Your task to perform on an android device: allow notifications from all sites in the chrome app Image 0: 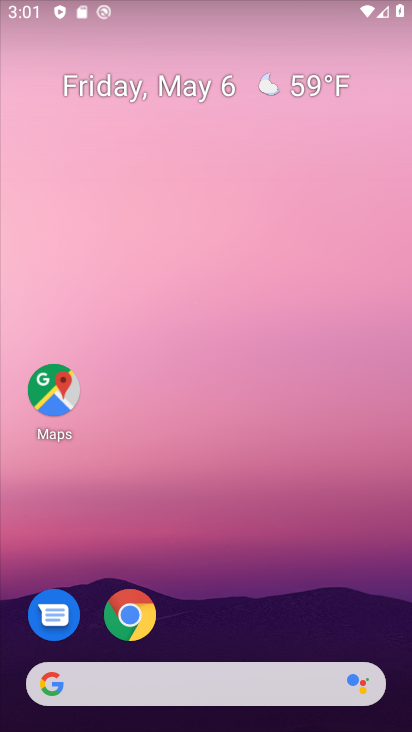
Step 0: press home button
Your task to perform on an android device: allow notifications from all sites in the chrome app Image 1: 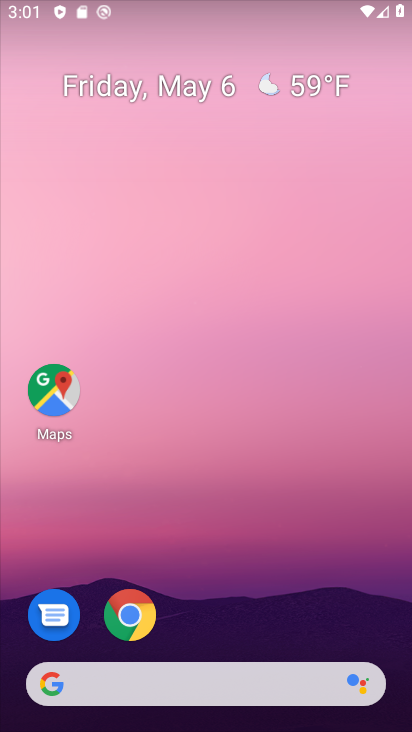
Step 1: click (282, 188)
Your task to perform on an android device: allow notifications from all sites in the chrome app Image 2: 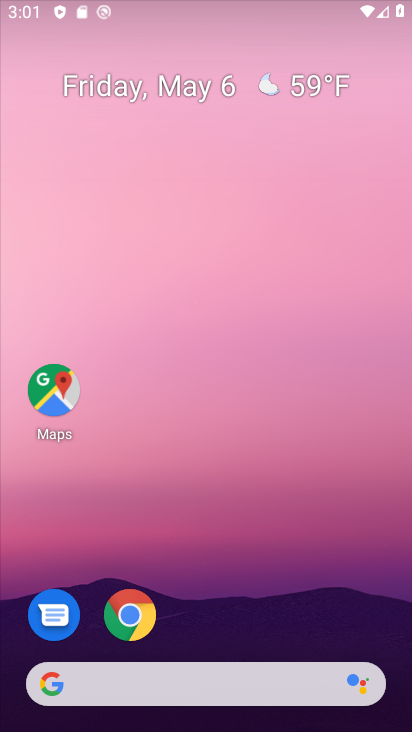
Step 2: drag from (234, 438) to (241, 230)
Your task to perform on an android device: allow notifications from all sites in the chrome app Image 3: 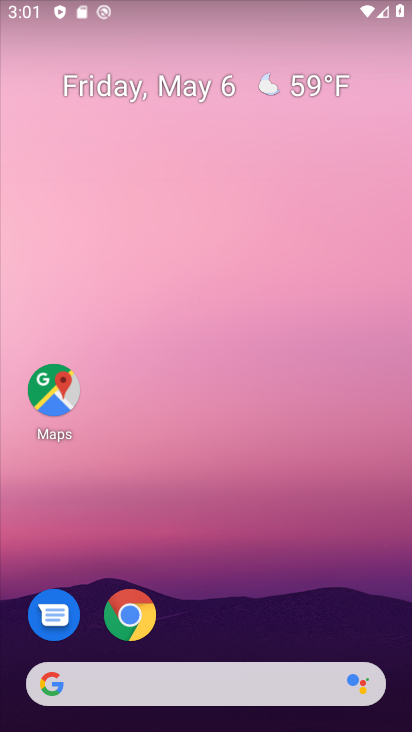
Step 3: drag from (243, 542) to (273, 213)
Your task to perform on an android device: allow notifications from all sites in the chrome app Image 4: 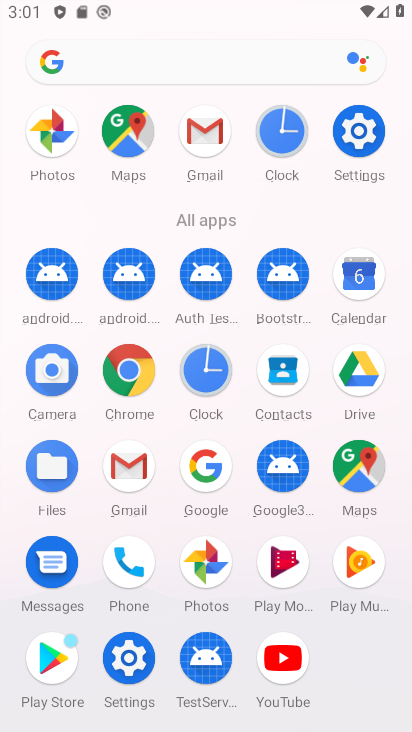
Step 4: click (354, 265)
Your task to perform on an android device: allow notifications from all sites in the chrome app Image 5: 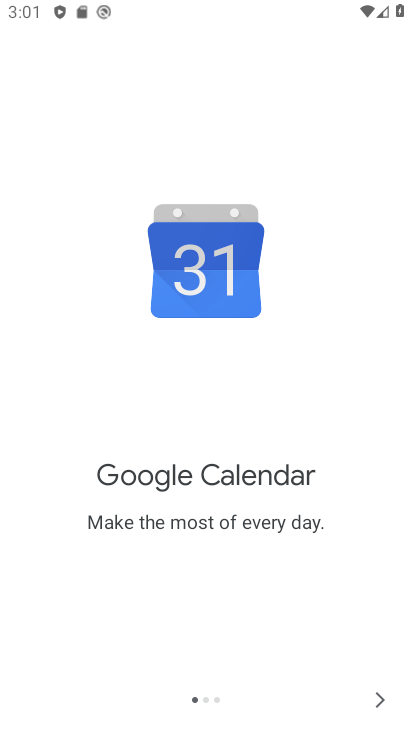
Step 5: click (384, 701)
Your task to perform on an android device: allow notifications from all sites in the chrome app Image 6: 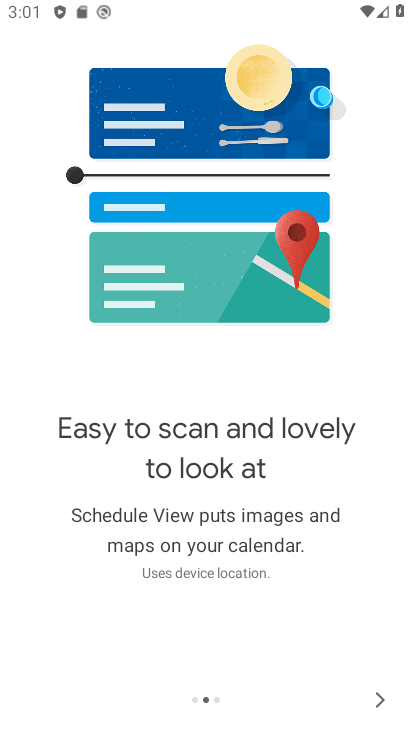
Step 6: click (376, 703)
Your task to perform on an android device: allow notifications from all sites in the chrome app Image 7: 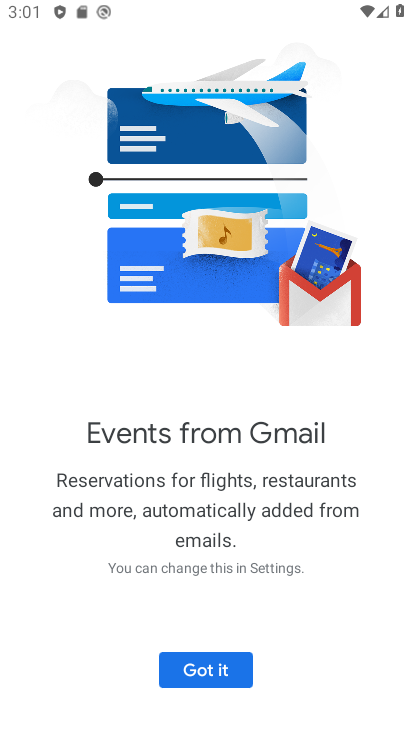
Step 7: click (376, 703)
Your task to perform on an android device: allow notifications from all sites in the chrome app Image 8: 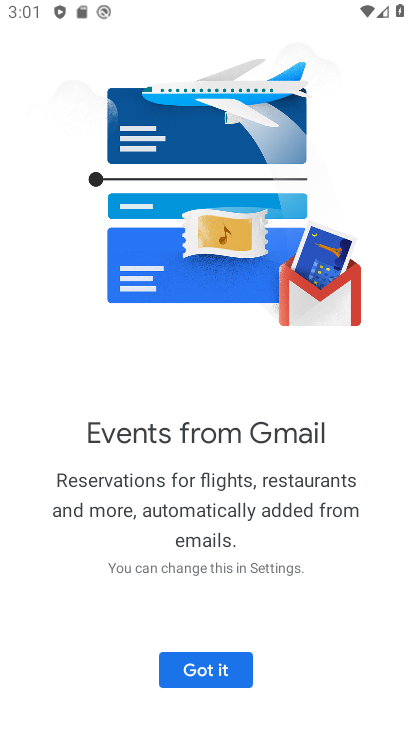
Step 8: click (207, 672)
Your task to perform on an android device: allow notifications from all sites in the chrome app Image 9: 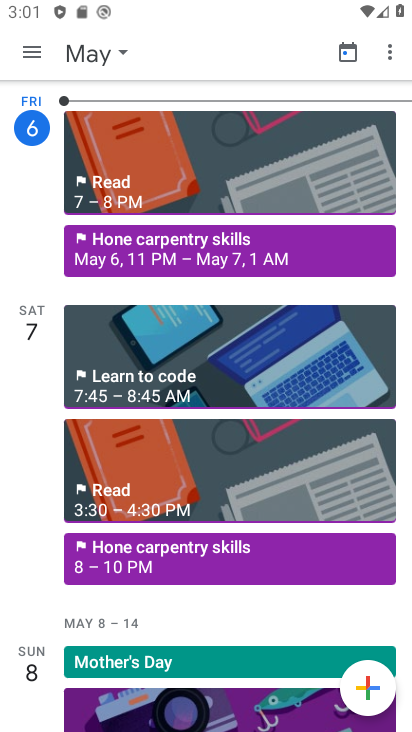
Step 9: click (41, 52)
Your task to perform on an android device: allow notifications from all sites in the chrome app Image 10: 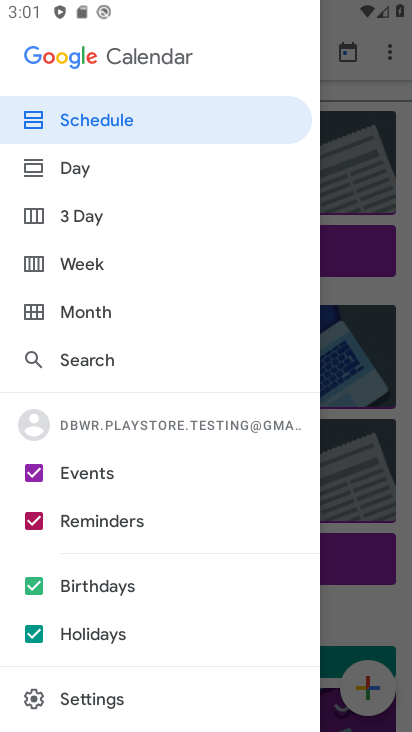
Step 10: click (82, 311)
Your task to perform on an android device: allow notifications from all sites in the chrome app Image 11: 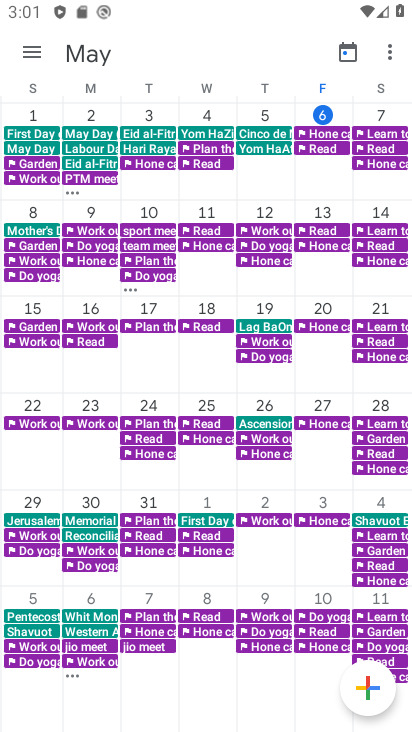
Step 11: click (319, 133)
Your task to perform on an android device: allow notifications from all sites in the chrome app Image 12: 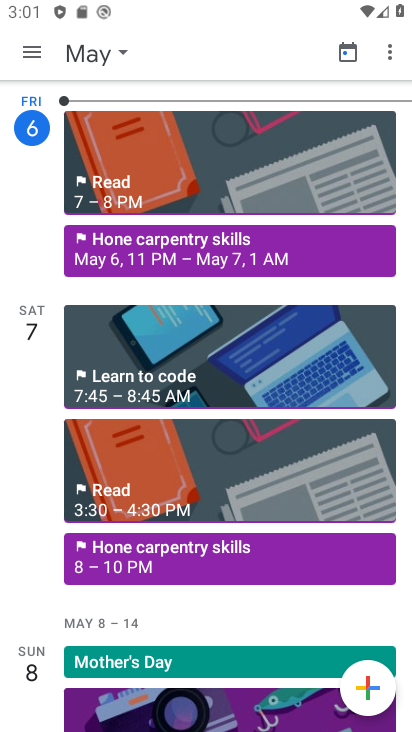
Step 12: task complete